Your task to perform on an android device: stop showing notifications on the lock screen Image 0: 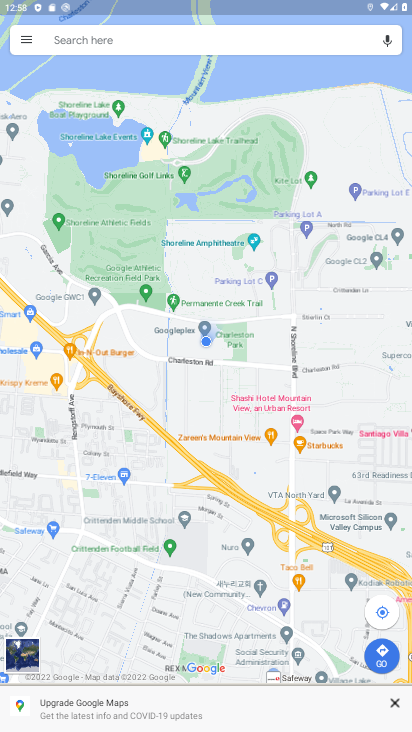
Step 0: press home button
Your task to perform on an android device: stop showing notifications on the lock screen Image 1: 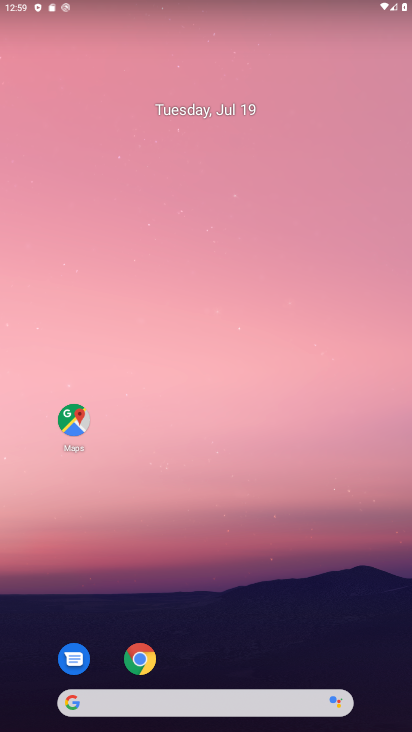
Step 1: drag from (235, 596) to (273, 44)
Your task to perform on an android device: stop showing notifications on the lock screen Image 2: 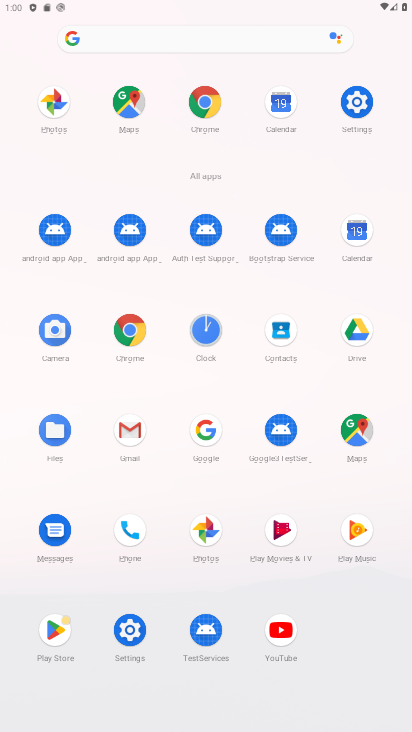
Step 2: click (124, 648)
Your task to perform on an android device: stop showing notifications on the lock screen Image 3: 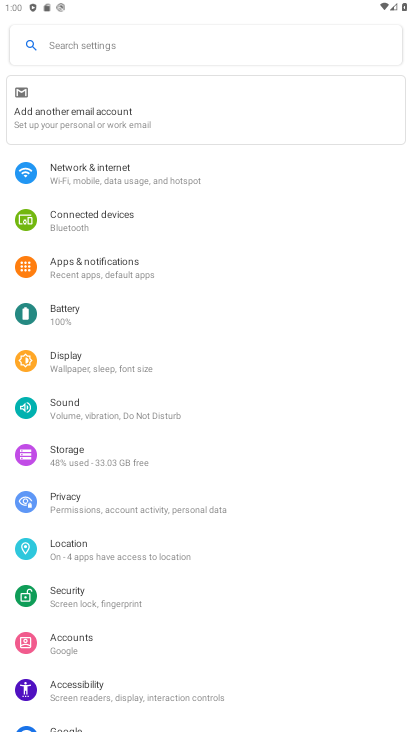
Step 3: click (87, 266)
Your task to perform on an android device: stop showing notifications on the lock screen Image 4: 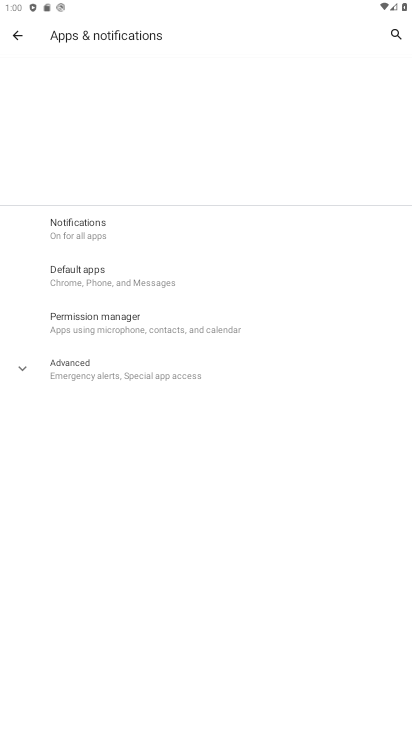
Step 4: click (112, 230)
Your task to perform on an android device: stop showing notifications on the lock screen Image 5: 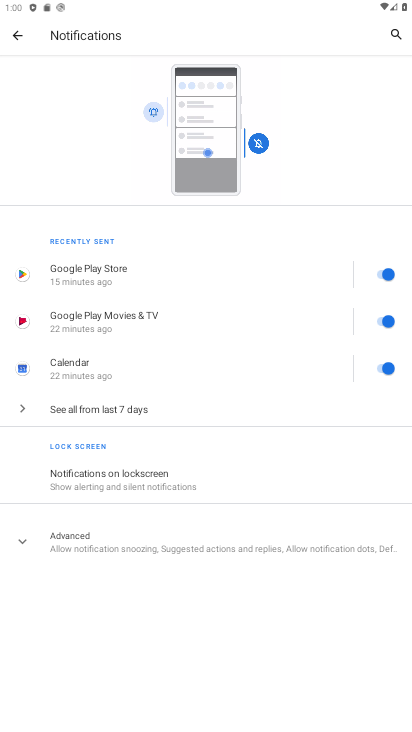
Step 5: click (105, 476)
Your task to perform on an android device: stop showing notifications on the lock screen Image 6: 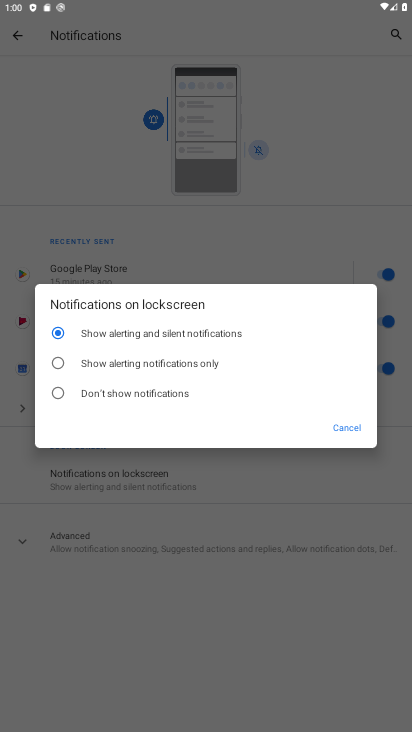
Step 6: click (115, 388)
Your task to perform on an android device: stop showing notifications on the lock screen Image 7: 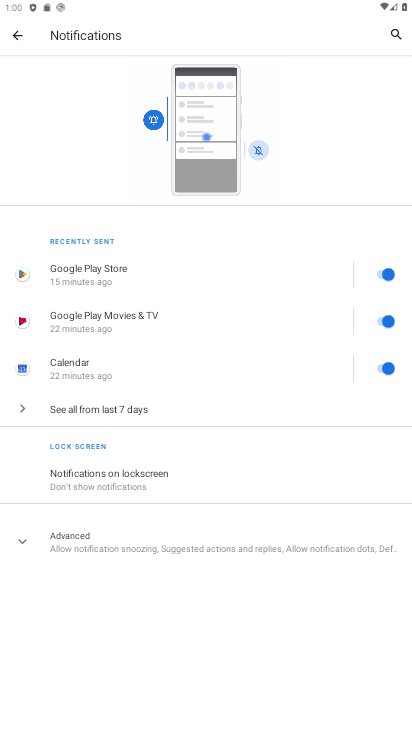
Step 7: task complete